Your task to perform on an android device: Add "lenovo thinkpad" to the cart on newegg.com, then select checkout. Image 0: 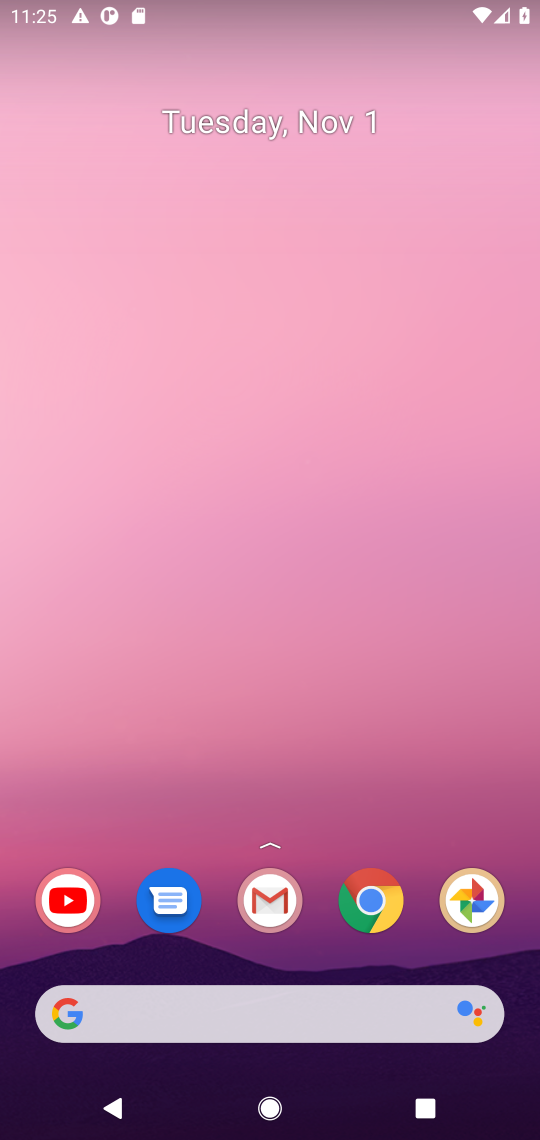
Step 0: click (373, 898)
Your task to perform on an android device: Add "lenovo thinkpad" to the cart on newegg.com, then select checkout. Image 1: 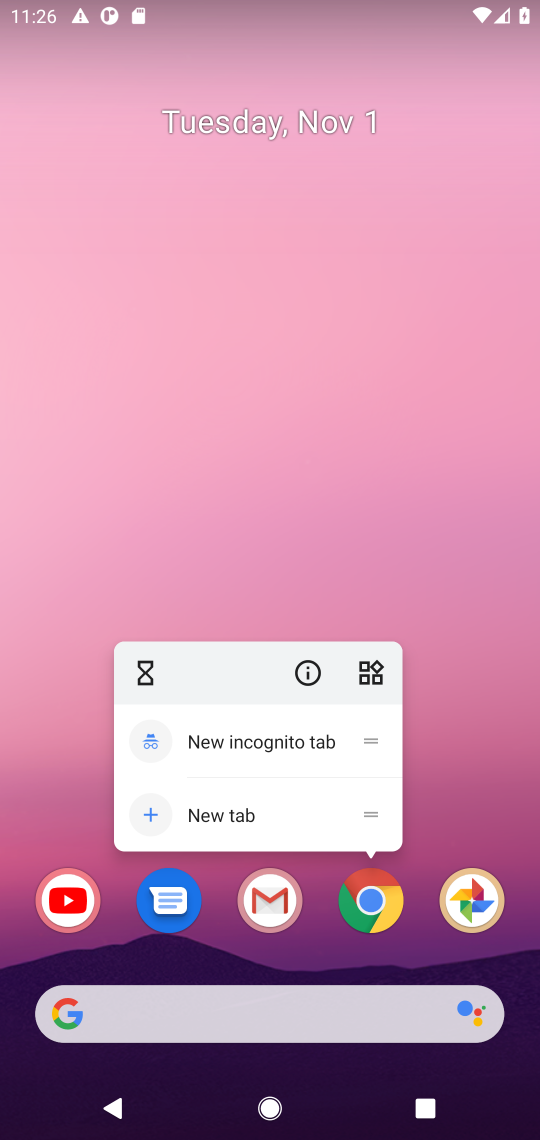
Step 1: click (367, 909)
Your task to perform on an android device: Add "lenovo thinkpad" to the cart on newegg.com, then select checkout. Image 2: 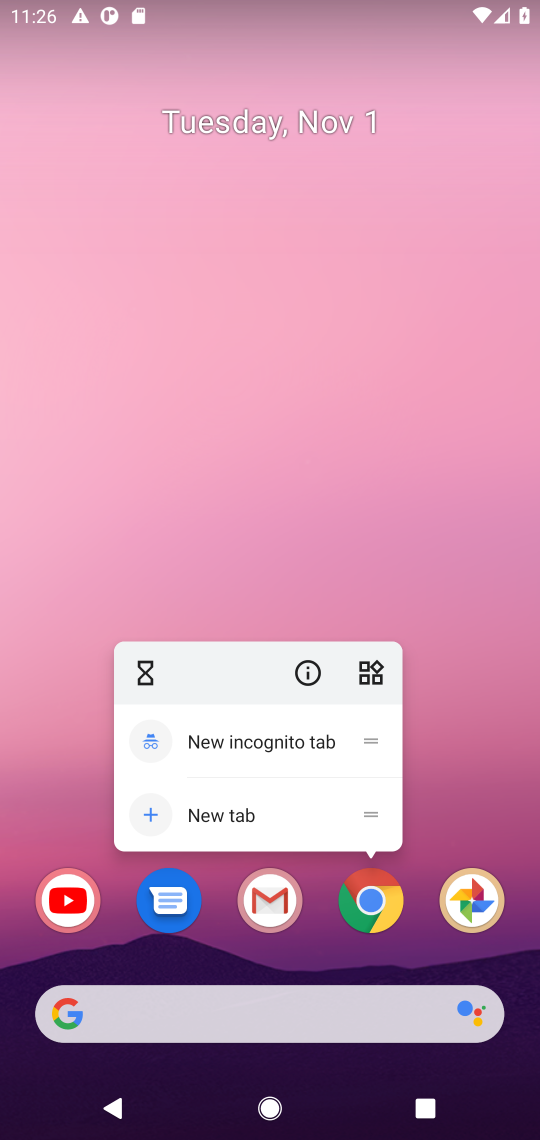
Step 2: click (367, 900)
Your task to perform on an android device: Add "lenovo thinkpad" to the cart on newegg.com, then select checkout. Image 3: 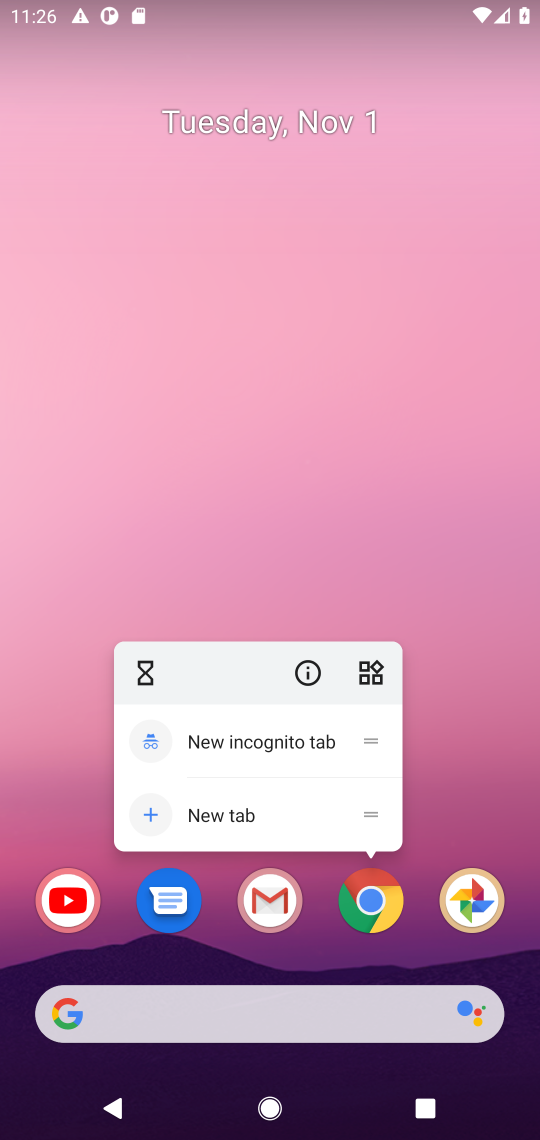
Step 3: click (367, 900)
Your task to perform on an android device: Add "lenovo thinkpad" to the cart on newegg.com, then select checkout. Image 4: 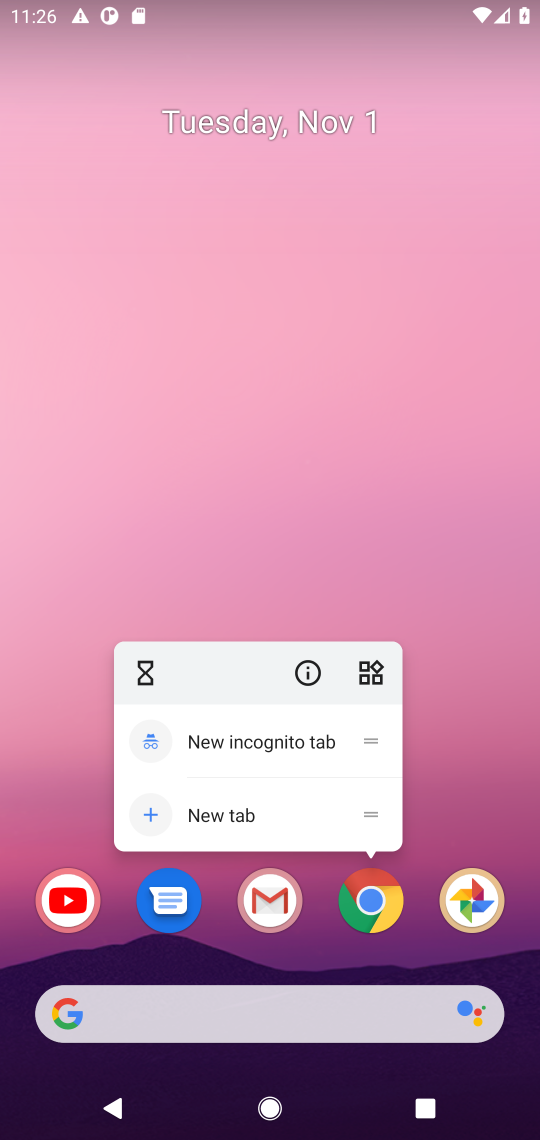
Step 4: click (369, 900)
Your task to perform on an android device: Add "lenovo thinkpad" to the cart on newegg.com, then select checkout. Image 5: 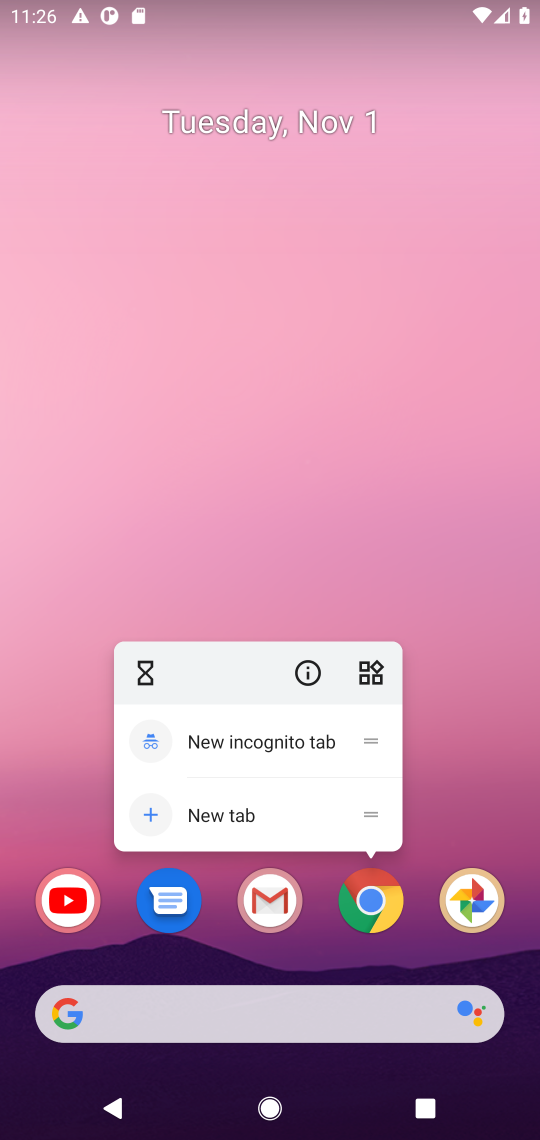
Step 5: click (369, 900)
Your task to perform on an android device: Add "lenovo thinkpad" to the cart on newegg.com, then select checkout. Image 6: 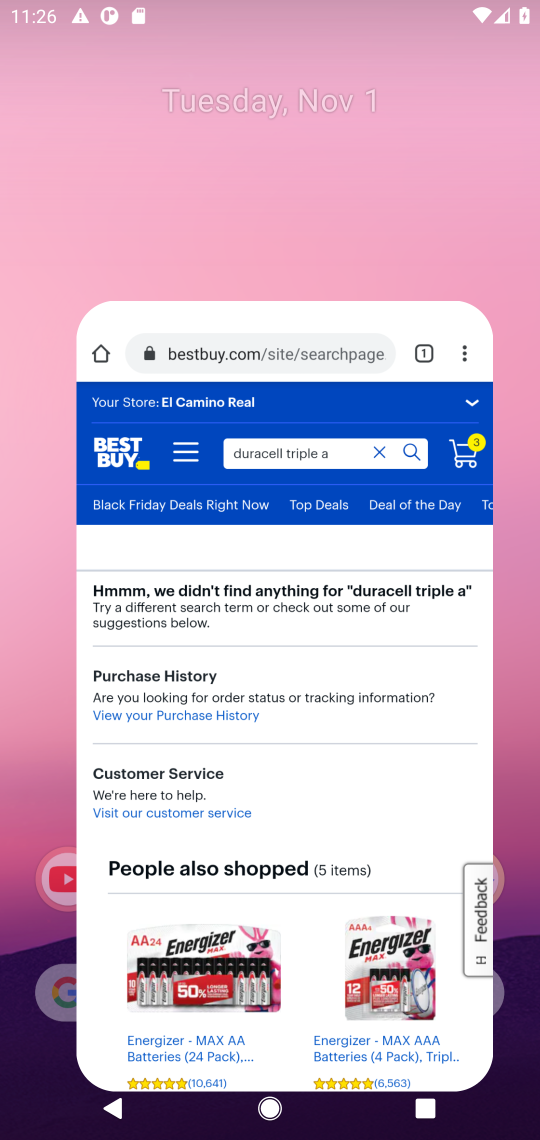
Step 6: click (369, 900)
Your task to perform on an android device: Add "lenovo thinkpad" to the cart on newegg.com, then select checkout. Image 7: 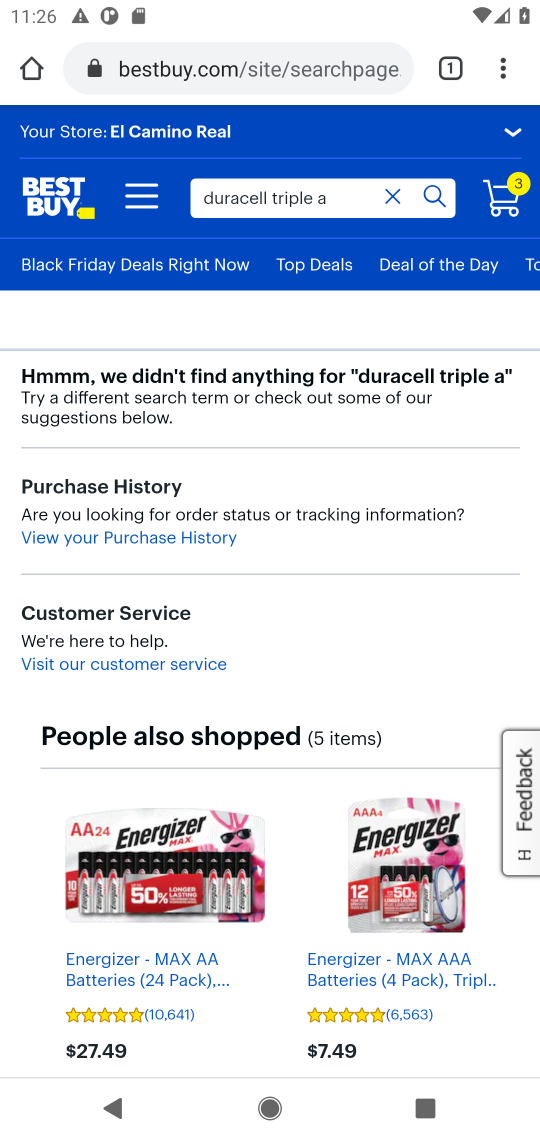
Step 7: click (239, 52)
Your task to perform on an android device: Add "lenovo thinkpad" to the cart on newegg.com, then select checkout. Image 8: 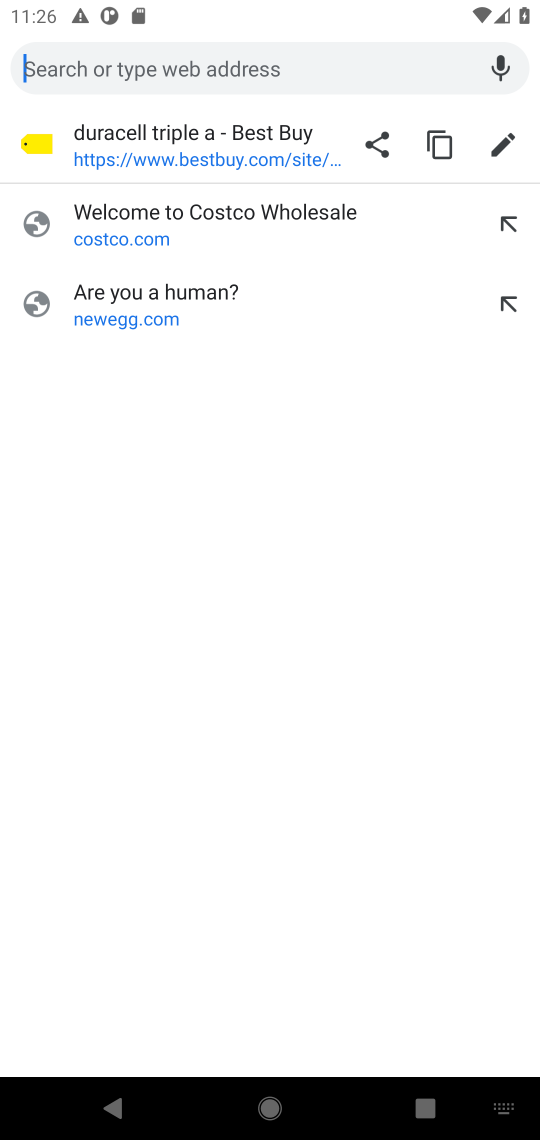
Step 8: type "newegg"
Your task to perform on an android device: Add "lenovo thinkpad" to the cart on newegg.com, then select checkout. Image 9: 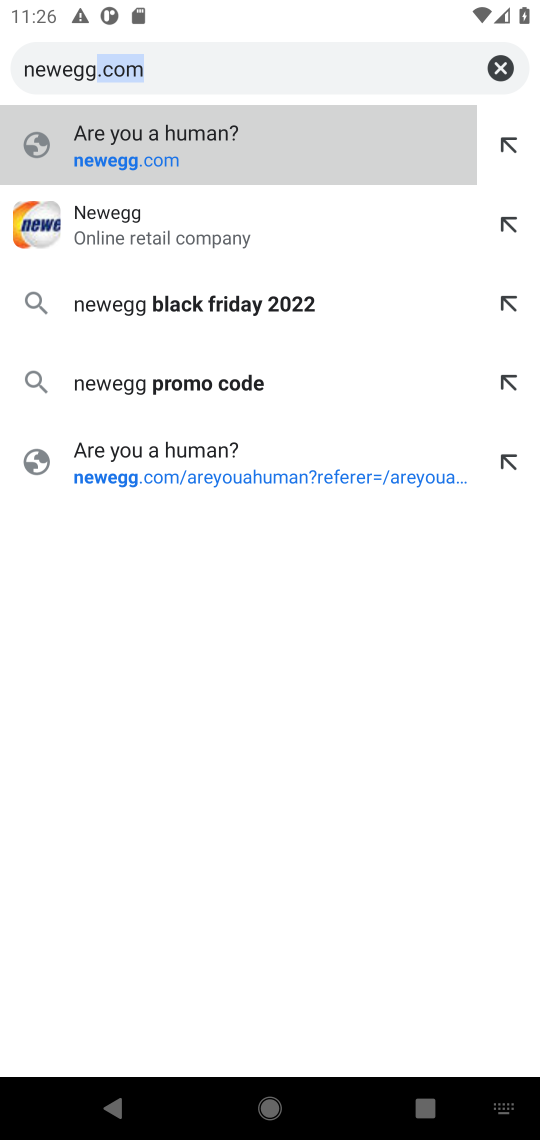
Step 9: click (188, 242)
Your task to perform on an android device: Add "lenovo thinkpad" to the cart on newegg.com, then select checkout. Image 10: 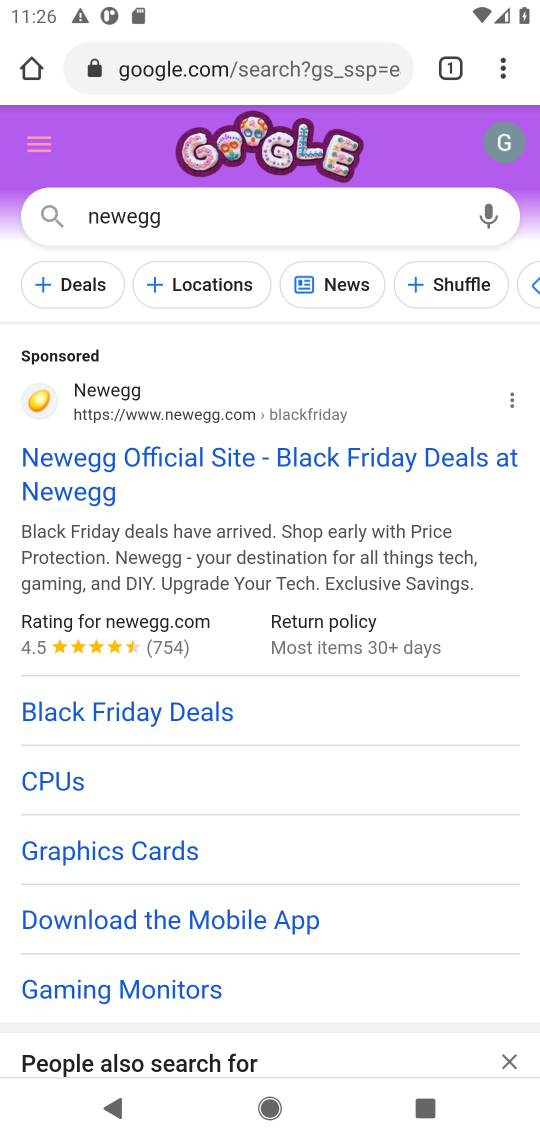
Step 10: click (100, 464)
Your task to perform on an android device: Add "lenovo thinkpad" to the cart on newegg.com, then select checkout. Image 11: 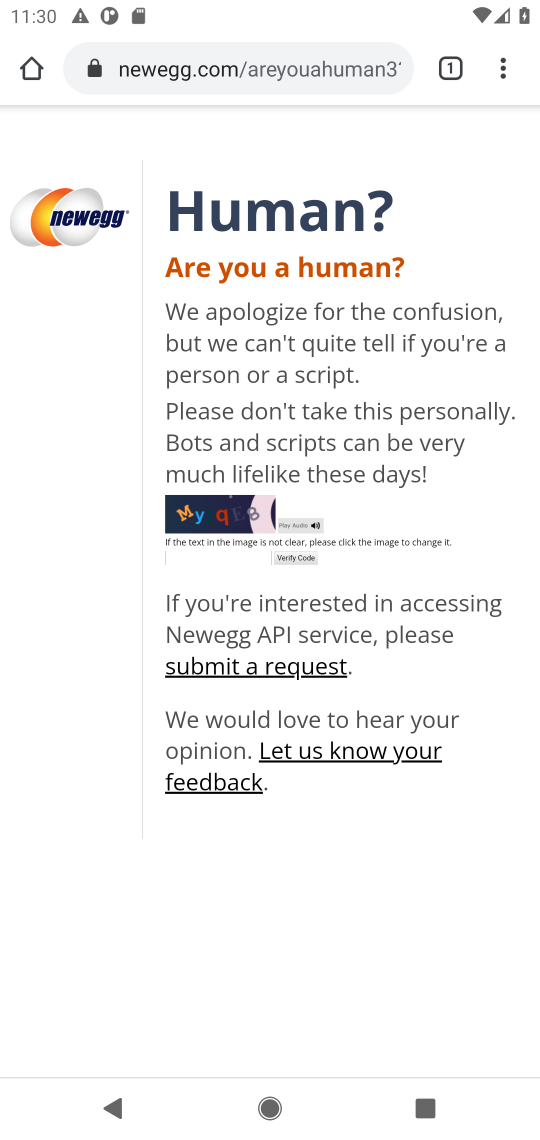
Step 11: task complete